Your task to perform on an android device: Go to Yahoo.com Image 0: 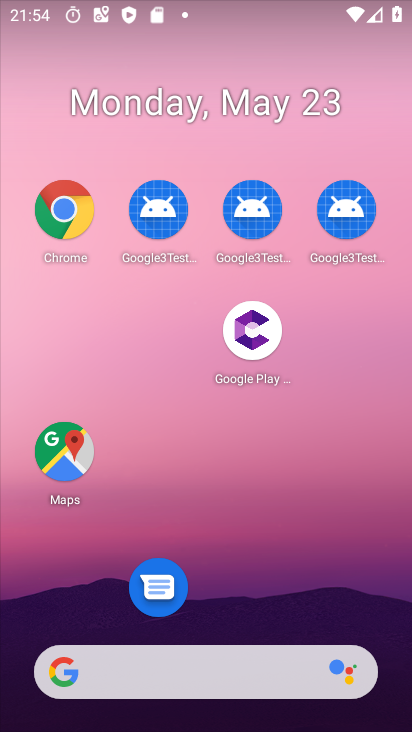
Step 0: click (66, 223)
Your task to perform on an android device: Go to Yahoo.com Image 1: 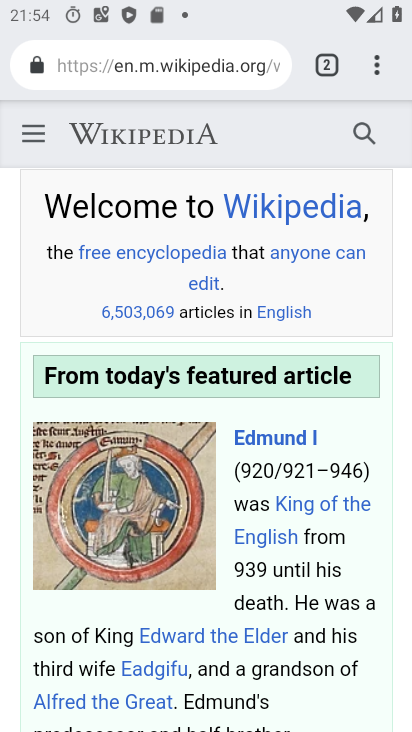
Step 1: click (213, 65)
Your task to perform on an android device: Go to Yahoo.com Image 2: 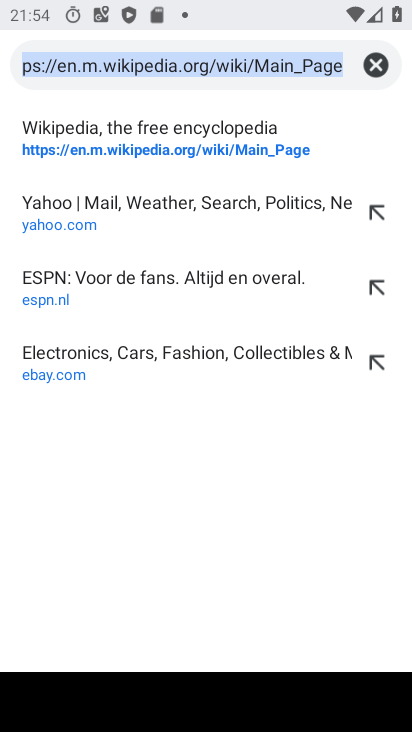
Step 2: click (185, 206)
Your task to perform on an android device: Go to Yahoo.com Image 3: 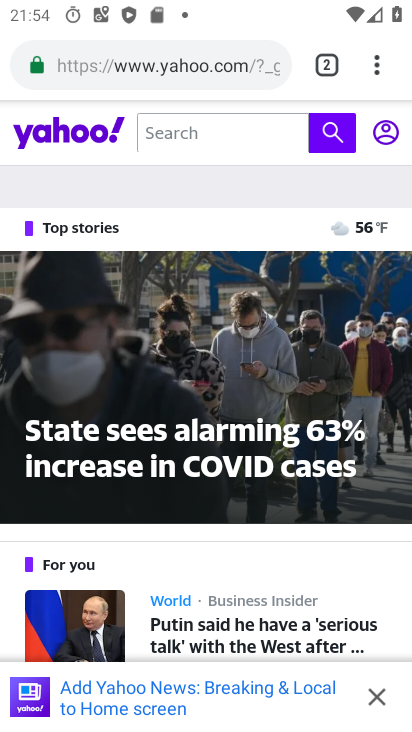
Step 3: task complete